Your task to perform on an android device: How much does a 2 bedroom apartment rent for in Los Angeles? Image 0: 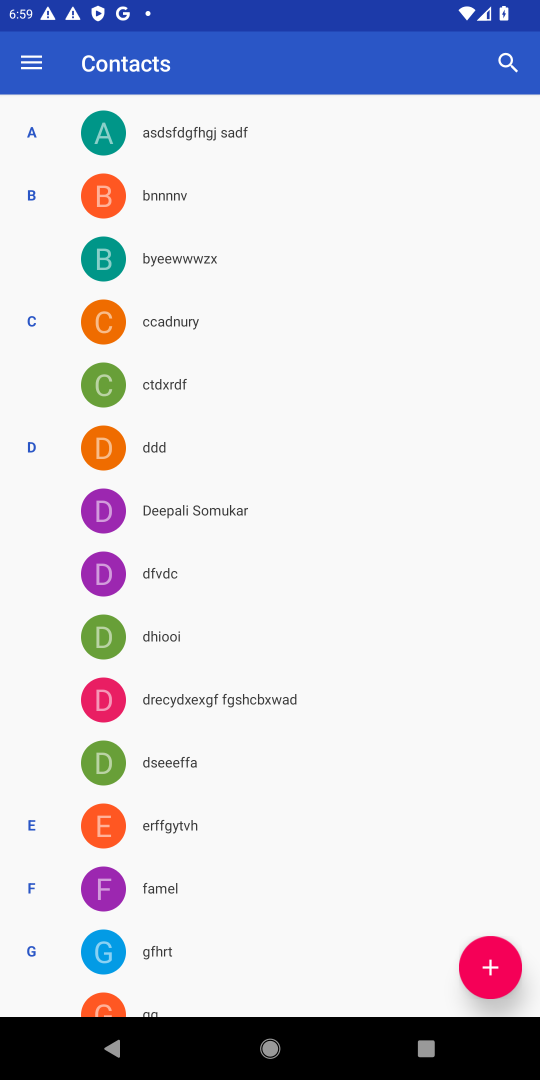
Step 0: press home button
Your task to perform on an android device: How much does a 2 bedroom apartment rent for in Los Angeles? Image 1: 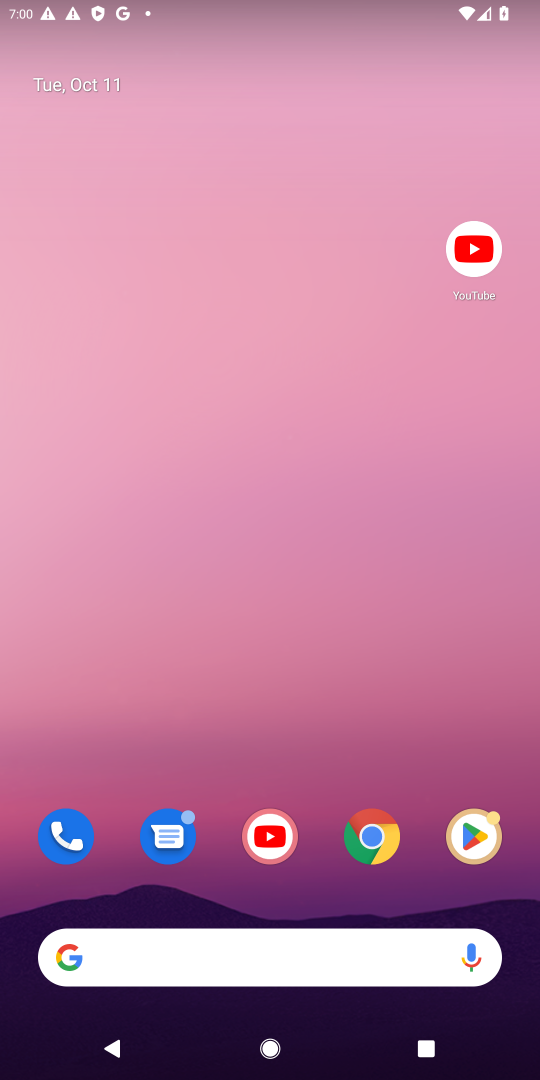
Step 1: click (374, 837)
Your task to perform on an android device: How much does a 2 bedroom apartment rent for in Los Angeles? Image 2: 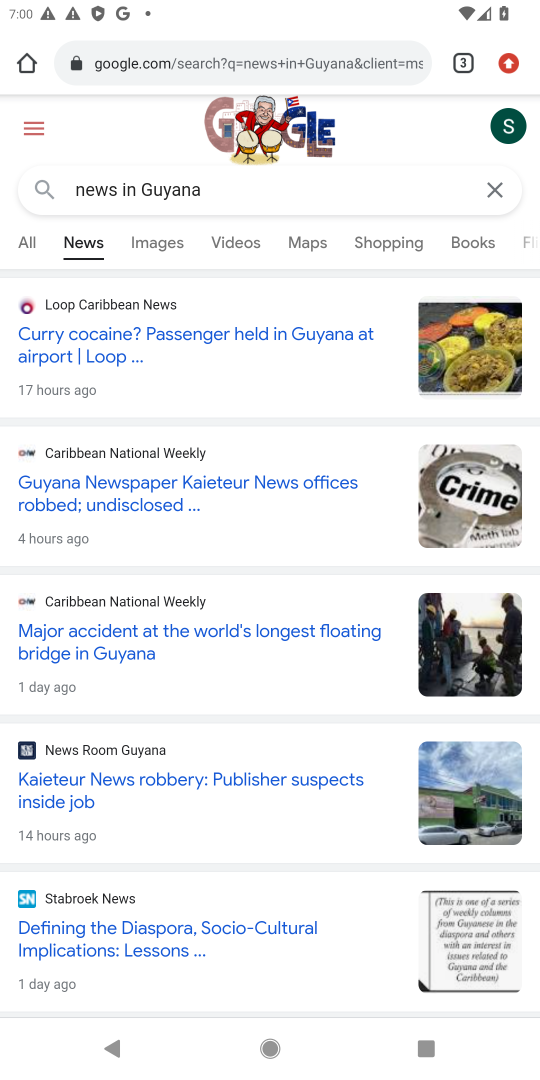
Step 2: click (346, 61)
Your task to perform on an android device: How much does a 2 bedroom apartment rent for in Los Angeles? Image 3: 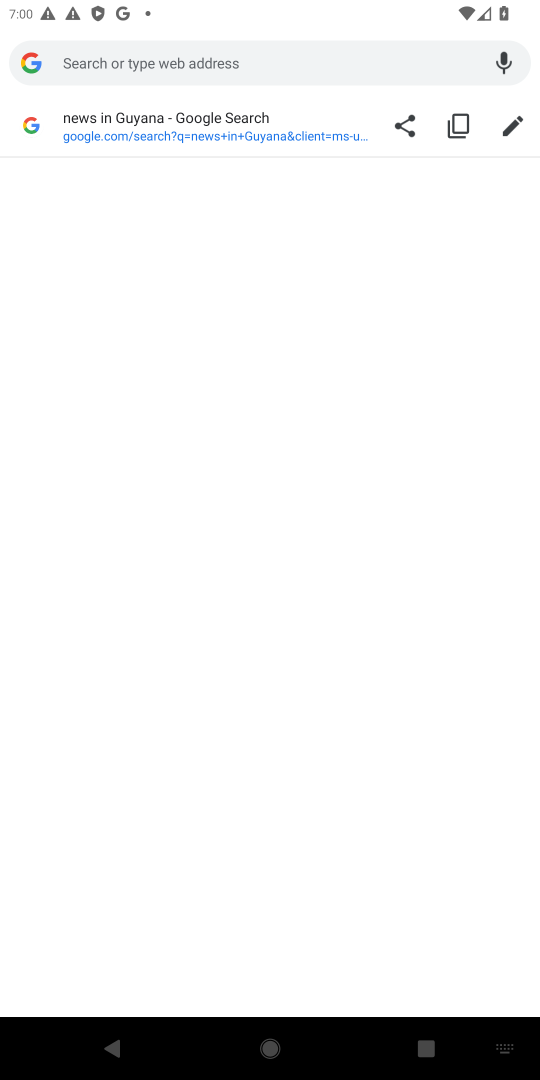
Step 3: type "2 bedroom apartment rent for in Los Angeles"
Your task to perform on an android device: How much does a 2 bedroom apartment rent for in Los Angeles? Image 4: 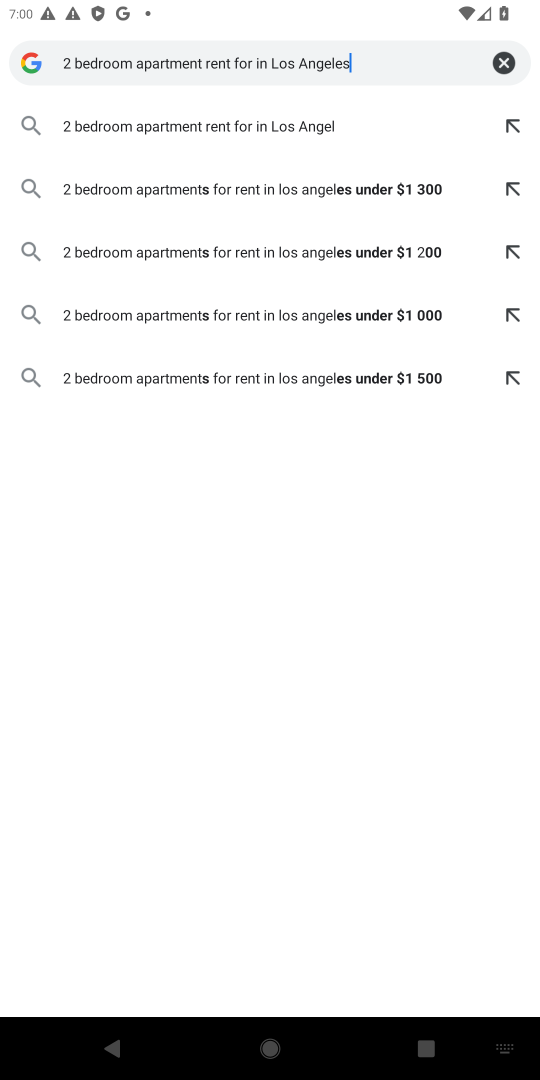
Step 4: press enter
Your task to perform on an android device: How much does a 2 bedroom apartment rent for in Los Angeles? Image 5: 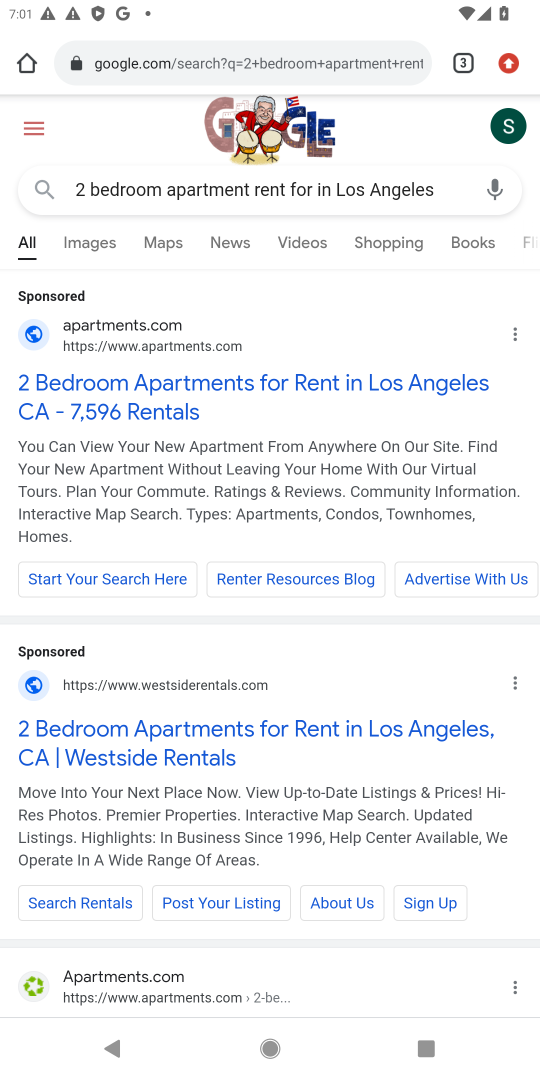
Step 5: click (283, 387)
Your task to perform on an android device: How much does a 2 bedroom apartment rent for in Los Angeles? Image 6: 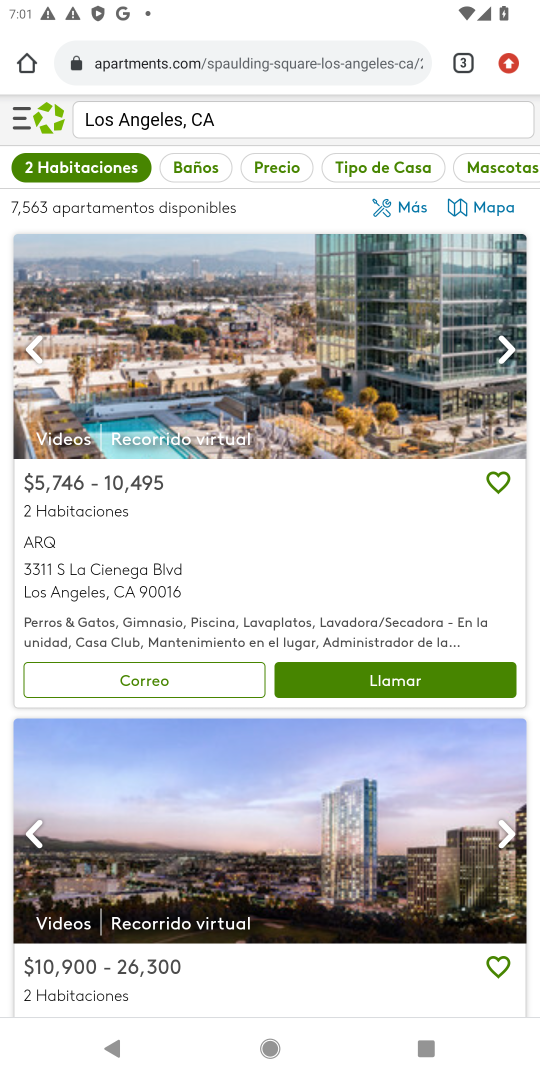
Step 6: task complete